Your task to perform on an android device: open app "Google Chrome" Image 0: 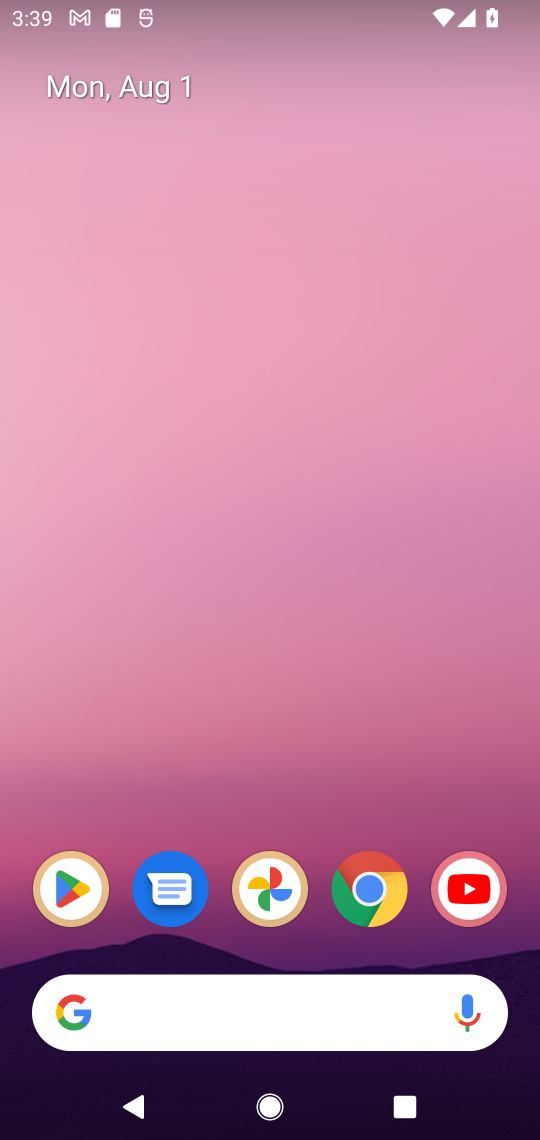
Step 0: click (69, 904)
Your task to perform on an android device: open app "Google Chrome" Image 1: 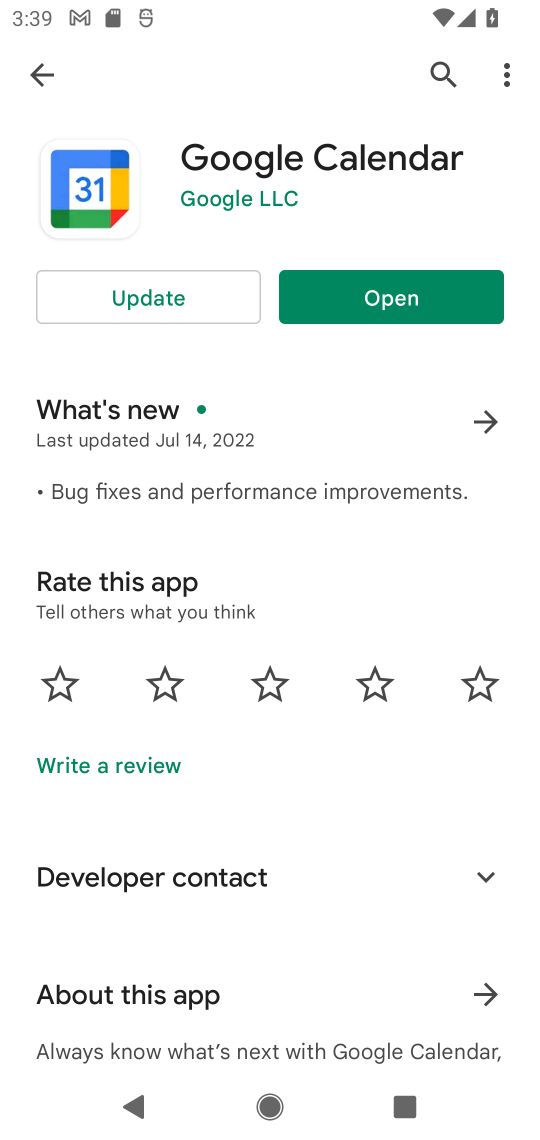
Step 1: click (428, 87)
Your task to perform on an android device: open app "Google Chrome" Image 2: 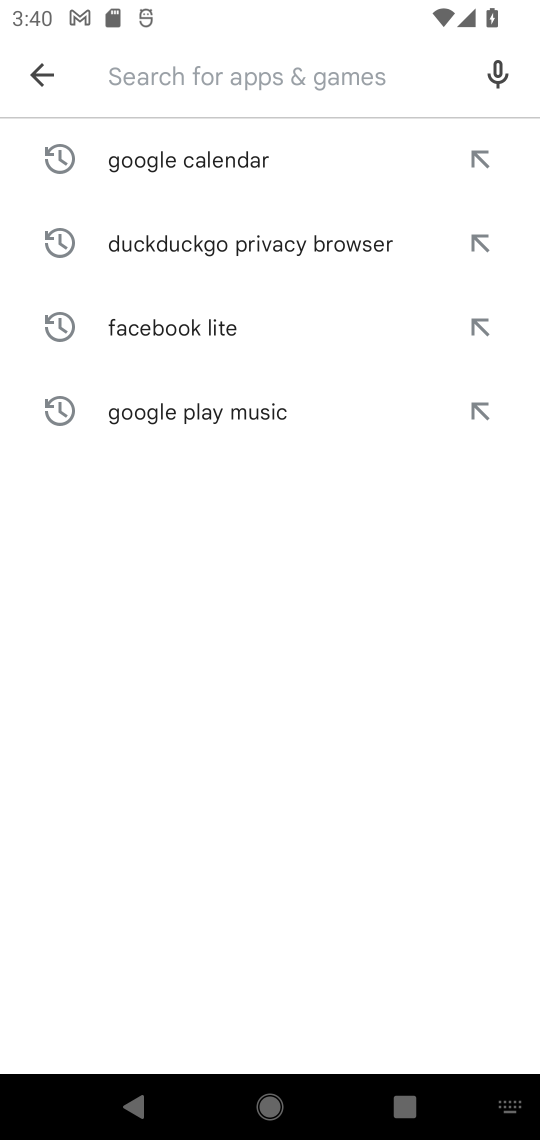
Step 2: type "Google Chrome"
Your task to perform on an android device: open app "Google Chrome" Image 3: 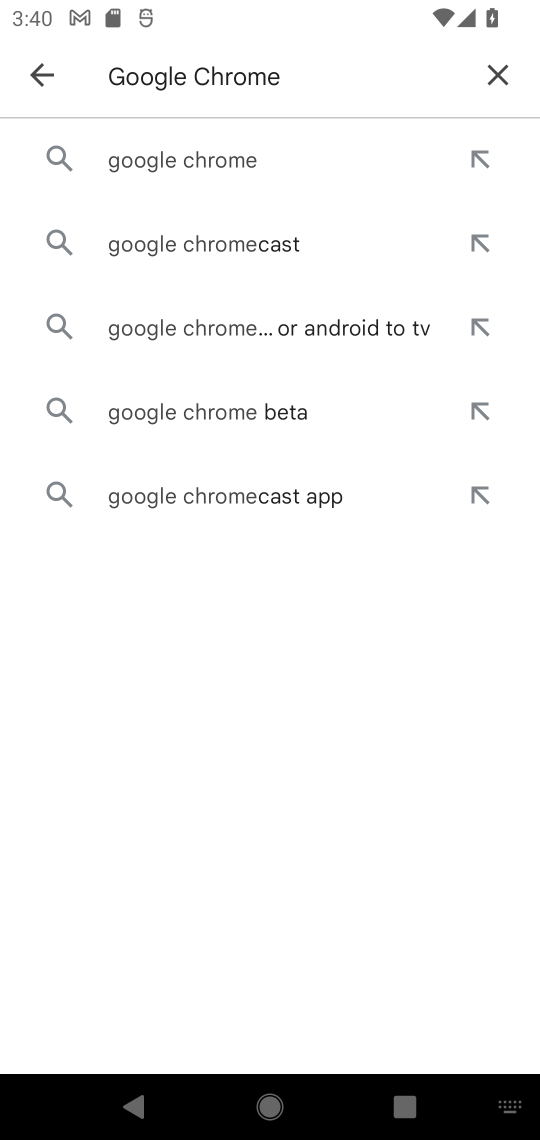
Step 3: click (187, 156)
Your task to perform on an android device: open app "Google Chrome" Image 4: 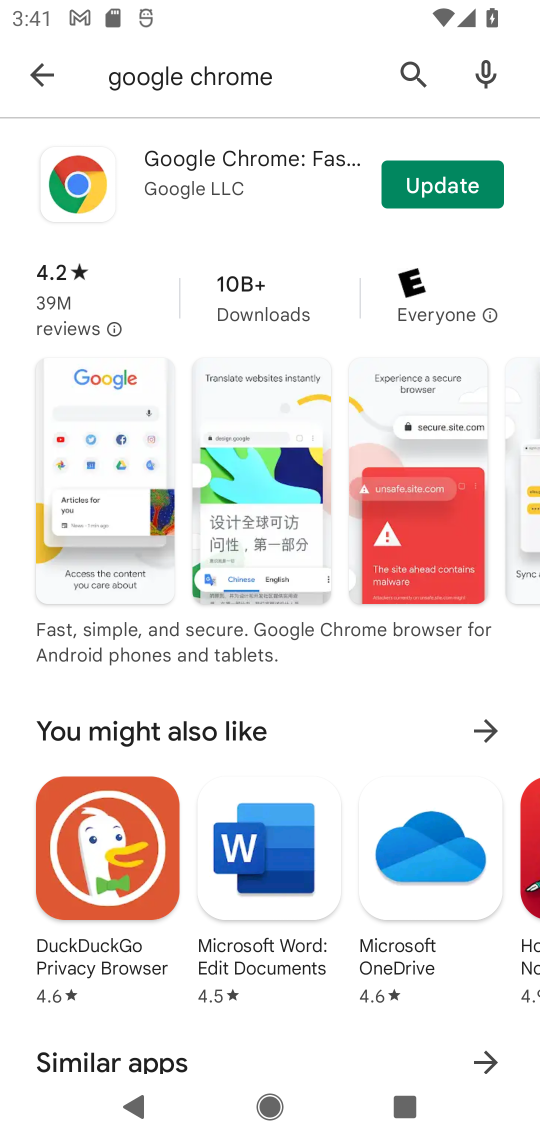
Step 4: click (295, 197)
Your task to perform on an android device: open app "Google Chrome" Image 5: 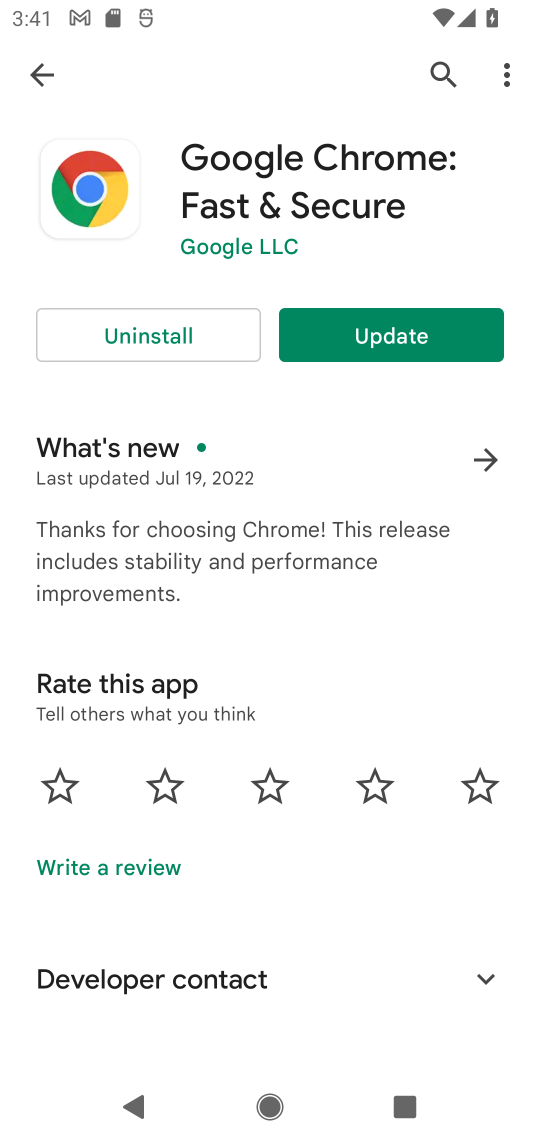
Step 5: task complete